Your task to perform on an android device: Open eBay Image 0: 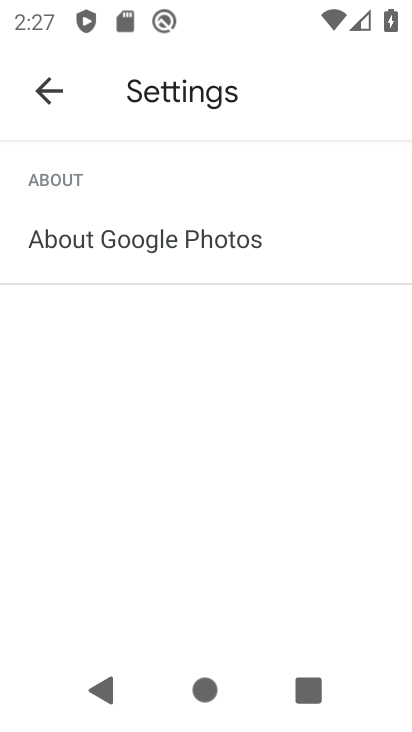
Step 0: press home button
Your task to perform on an android device: Open eBay Image 1: 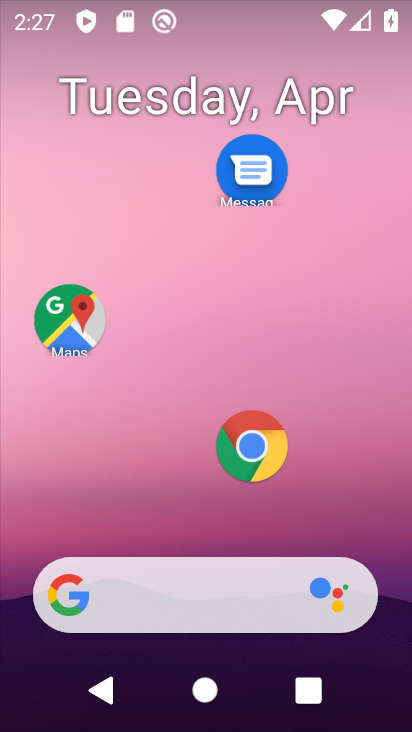
Step 1: click (250, 454)
Your task to perform on an android device: Open eBay Image 2: 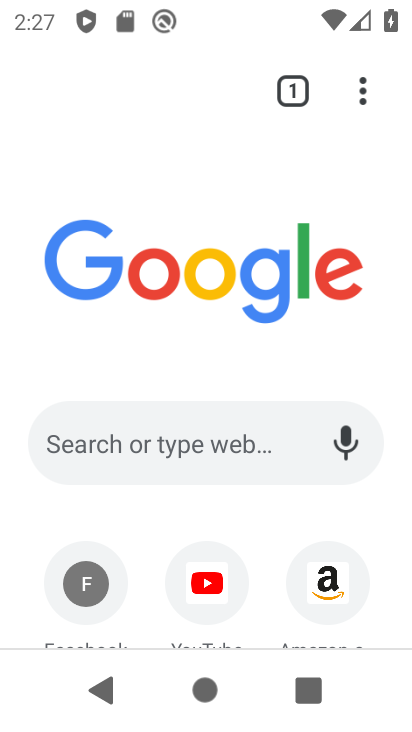
Step 2: drag from (232, 491) to (255, 255)
Your task to perform on an android device: Open eBay Image 3: 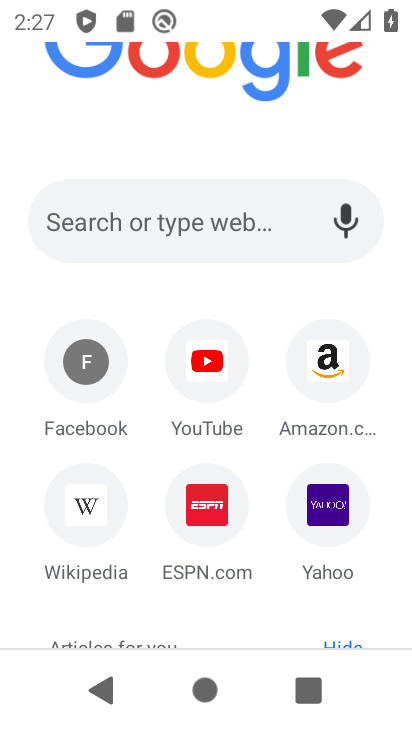
Step 3: drag from (251, 580) to (270, 427)
Your task to perform on an android device: Open eBay Image 4: 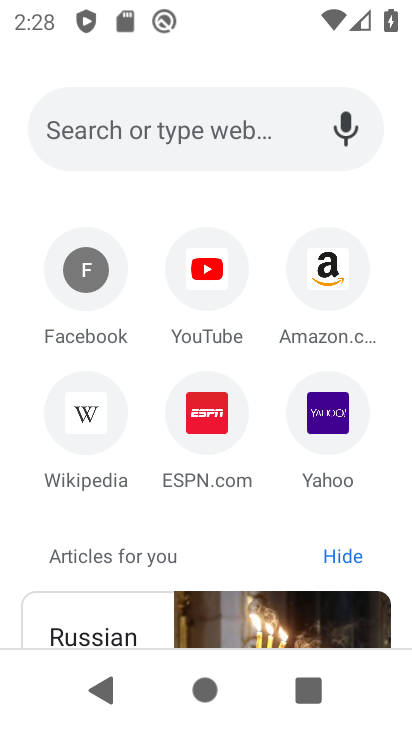
Step 4: click (175, 137)
Your task to perform on an android device: Open eBay Image 5: 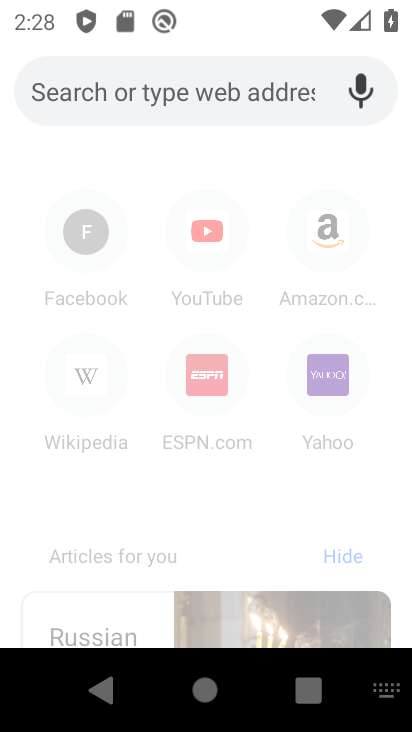
Step 5: type "eBay"
Your task to perform on an android device: Open eBay Image 6: 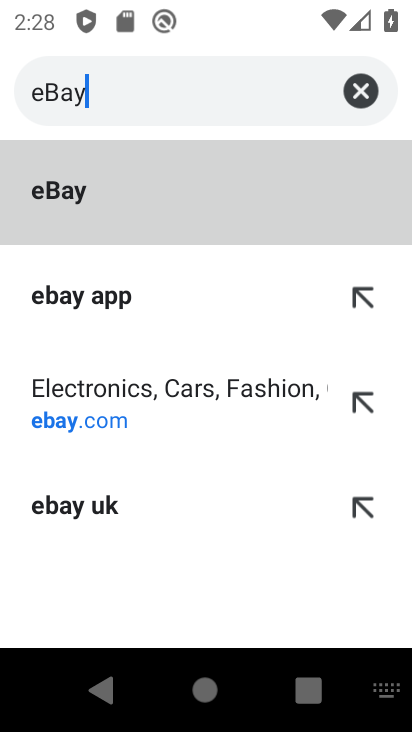
Step 6: click (118, 184)
Your task to perform on an android device: Open eBay Image 7: 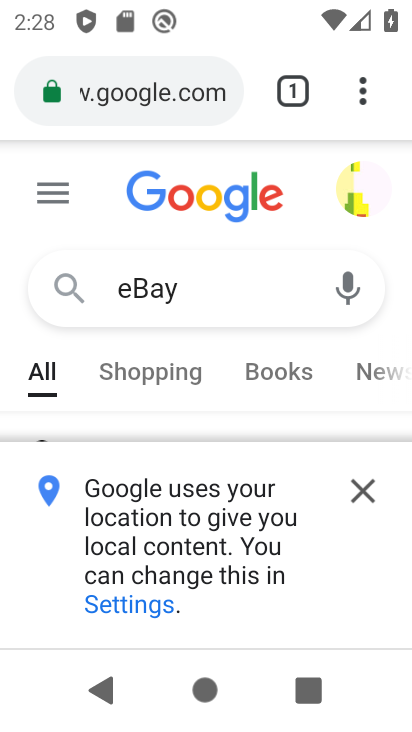
Step 7: click (369, 499)
Your task to perform on an android device: Open eBay Image 8: 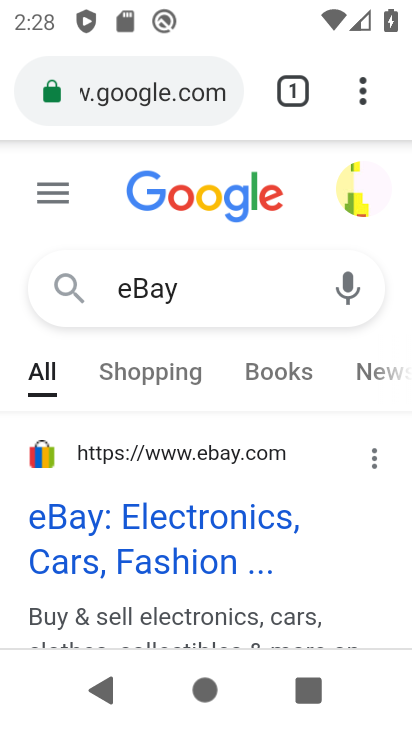
Step 8: click (182, 539)
Your task to perform on an android device: Open eBay Image 9: 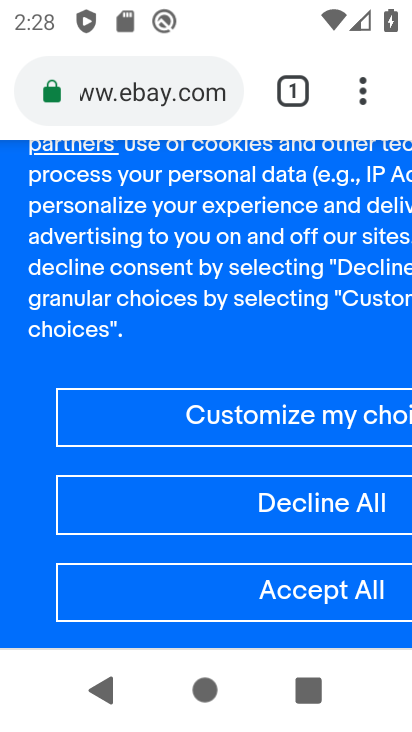
Step 9: task complete